Your task to perform on an android device: toggle priority inbox in the gmail app Image 0: 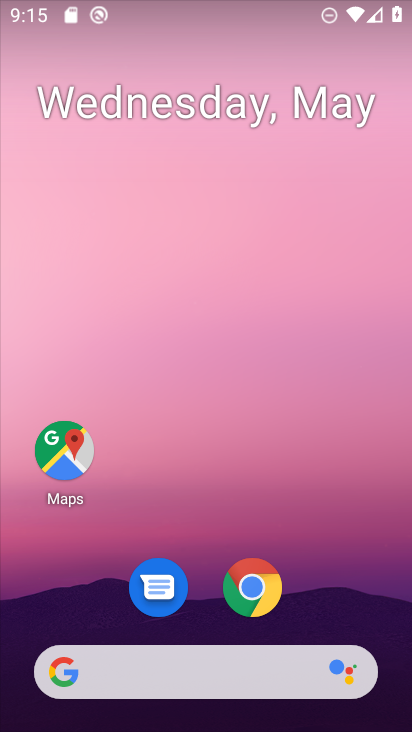
Step 0: drag from (201, 723) to (201, 195)
Your task to perform on an android device: toggle priority inbox in the gmail app Image 1: 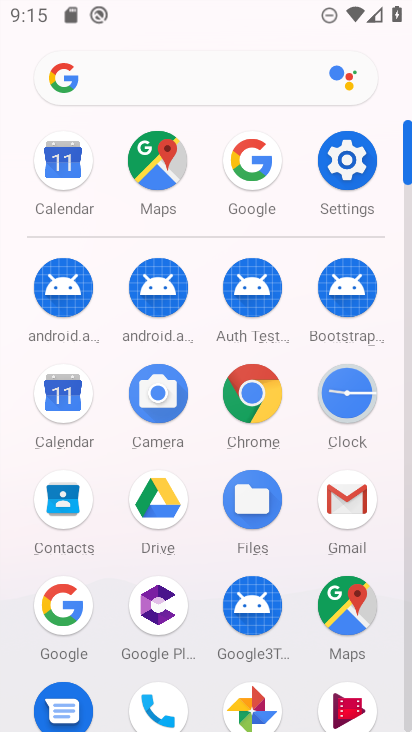
Step 1: click (342, 496)
Your task to perform on an android device: toggle priority inbox in the gmail app Image 2: 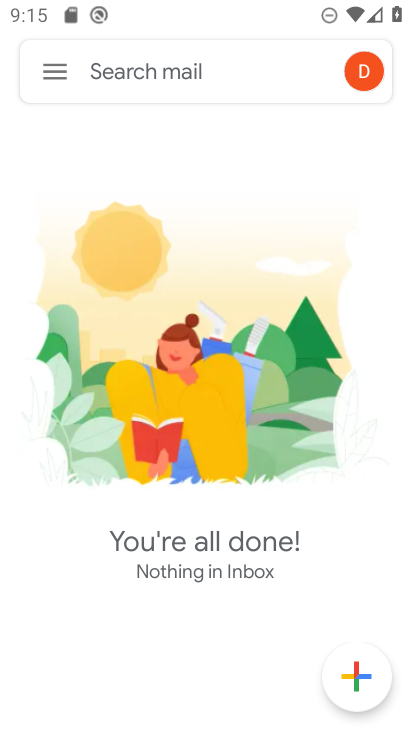
Step 2: click (49, 73)
Your task to perform on an android device: toggle priority inbox in the gmail app Image 3: 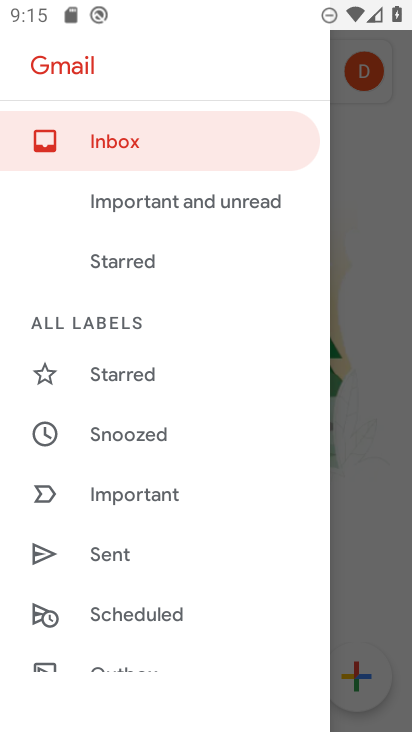
Step 3: drag from (151, 655) to (153, 309)
Your task to perform on an android device: toggle priority inbox in the gmail app Image 4: 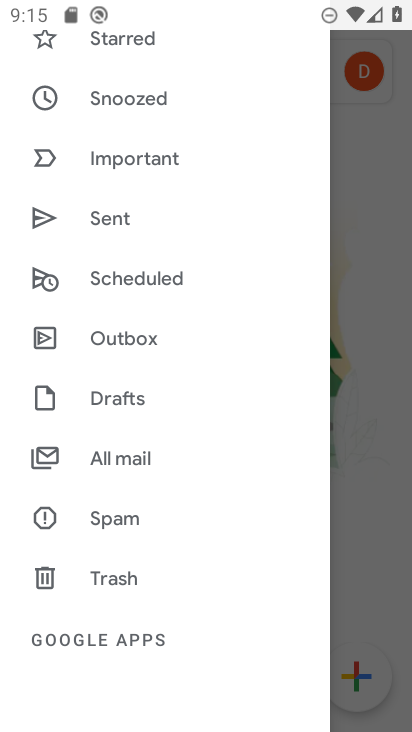
Step 4: drag from (110, 659) to (112, 238)
Your task to perform on an android device: toggle priority inbox in the gmail app Image 5: 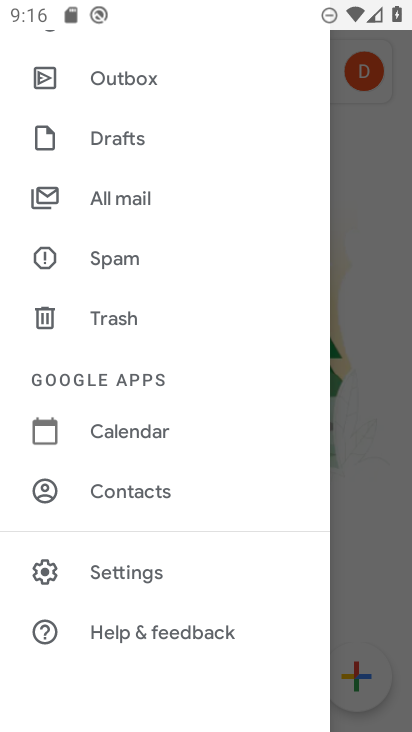
Step 5: click (135, 570)
Your task to perform on an android device: toggle priority inbox in the gmail app Image 6: 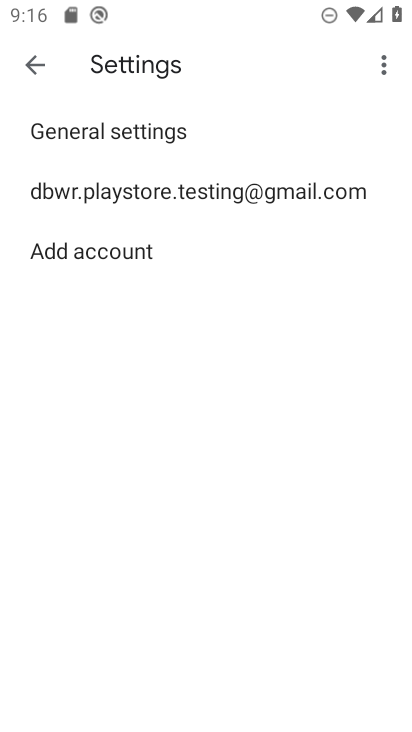
Step 6: click (136, 191)
Your task to perform on an android device: toggle priority inbox in the gmail app Image 7: 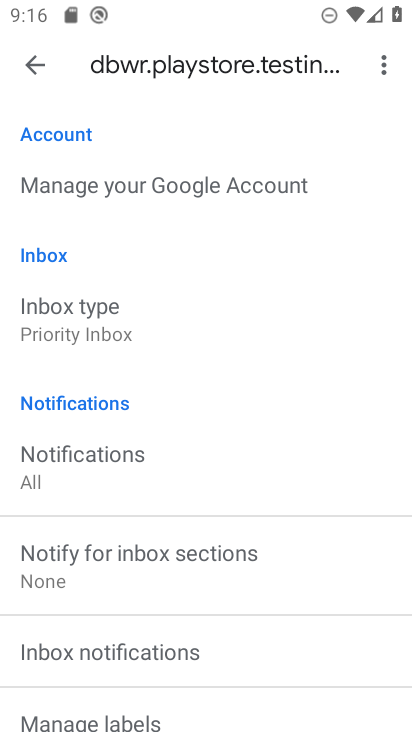
Step 7: click (80, 311)
Your task to perform on an android device: toggle priority inbox in the gmail app Image 8: 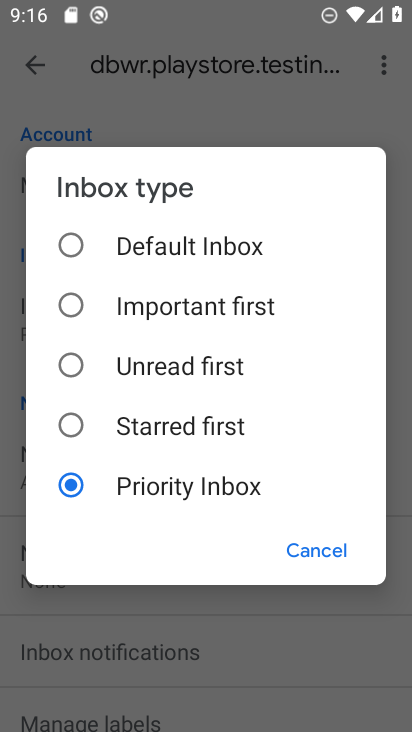
Step 8: click (68, 246)
Your task to perform on an android device: toggle priority inbox in the gmail app Image 9: 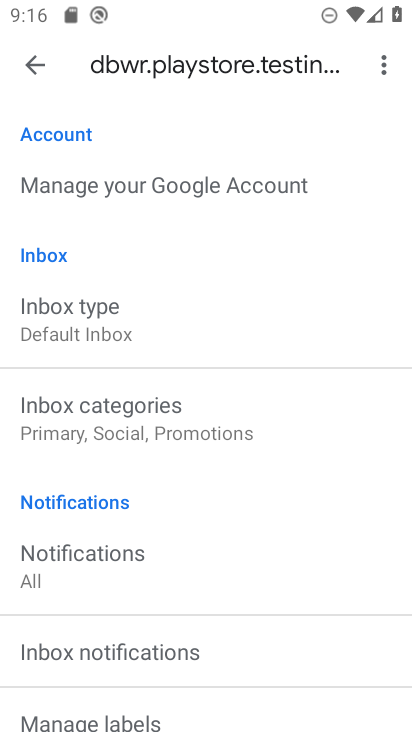
Step 9: task complete